Your task to perform on an android device: Search for flights from NYC to Mexico city Image 0: 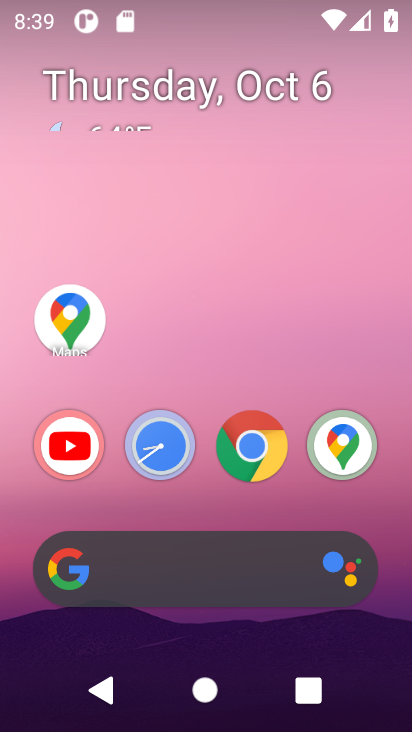
Step 0: click (171, 572)
Your task to perform on an android device: Search for flights from NYC to Mexico city Image 1: 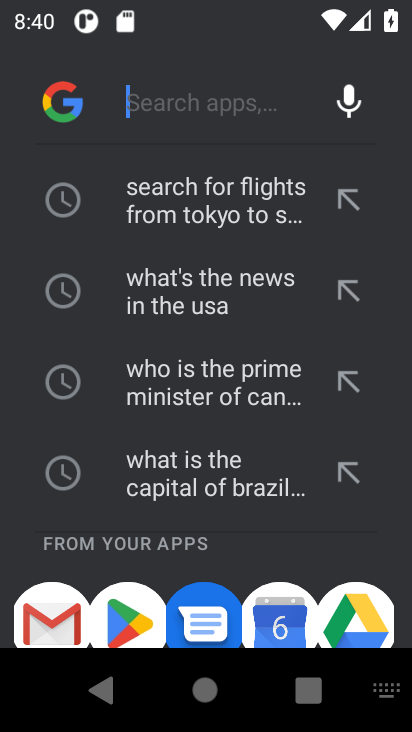
Step 1: type "Search for flights from NYC to Mexico city"
Your task to perform on an android device: Search for flights from NYC to Mexico city Image 2: 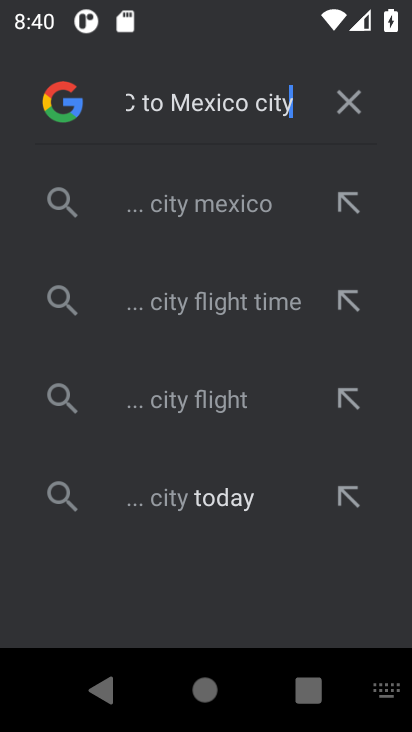
Step 2: click (224, 191)
Your task to perform on an android device: Search for flights from NYC to Mexico city Image 3: 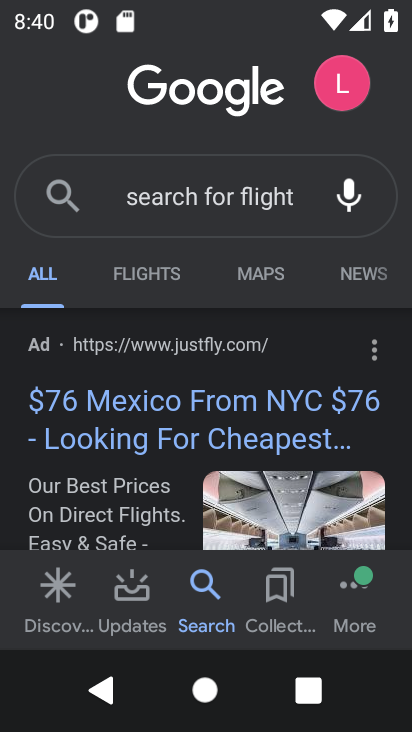
Step 3: task complete